Your task to perform on an android device: remove spam from my inbox in the gmail app Image 0: 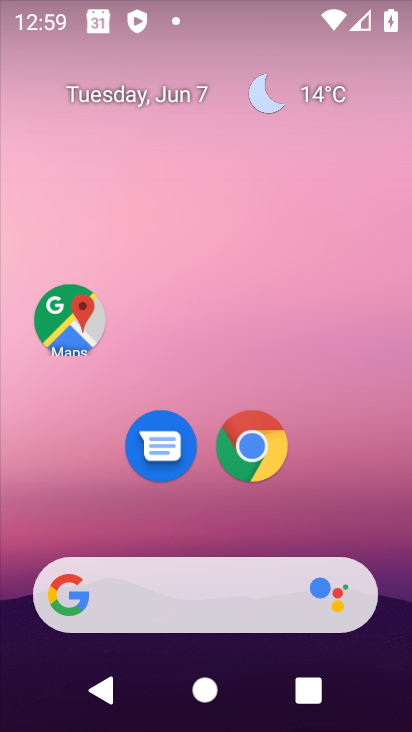
Step 0: drag from (325, 491) to (252, 19)
Your task to perform on an android device: remove spam from my inbox in the gmail app Image 1: 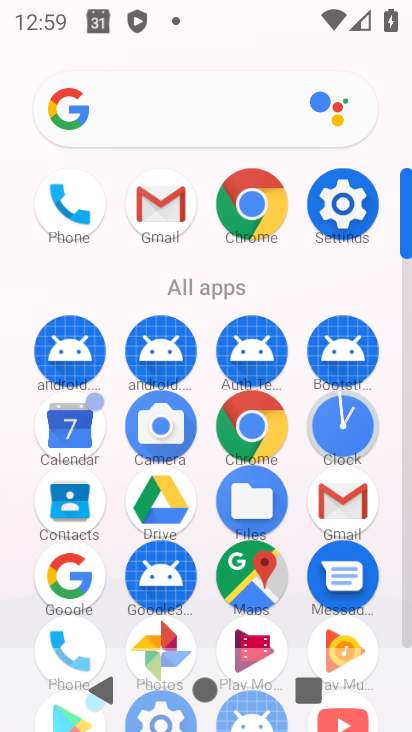
Step 1: drag from (7, 569) to (21, 241)
Your task to perform on an android device: remove spam from my inbox in the gmail app Image 2: 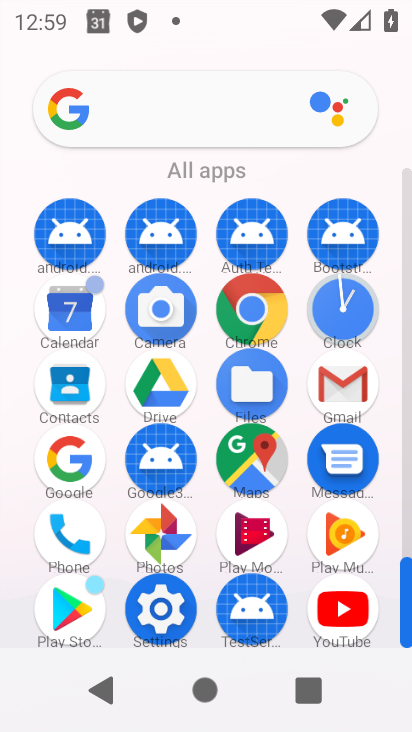
Step 2: click (341, 374)
Your task to perform on an android device: remove spam from my inbox in the gmail app Image 3: 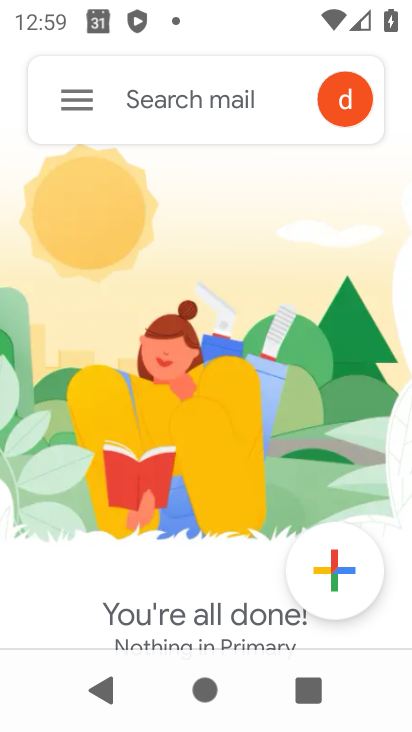
Step 3: click (82, 99)
Your task to perform on an android device: remove spam from my inbox in the gmail app Image 4: 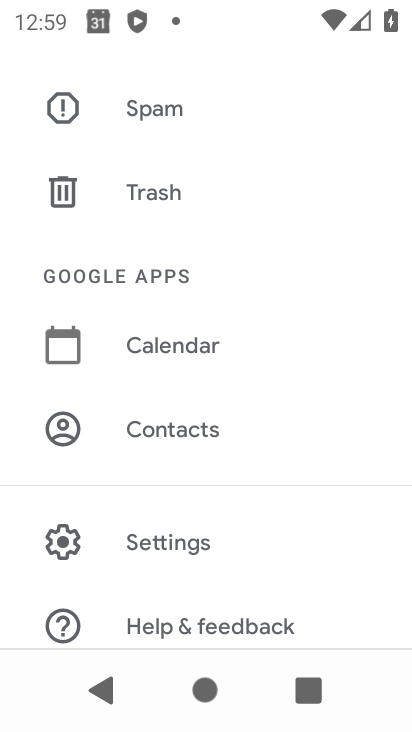
Step 4: drag from (217, 510) to (248, 123)
Your task to perform on an android device: remove spam from my inbox in the gmail app Image 5: 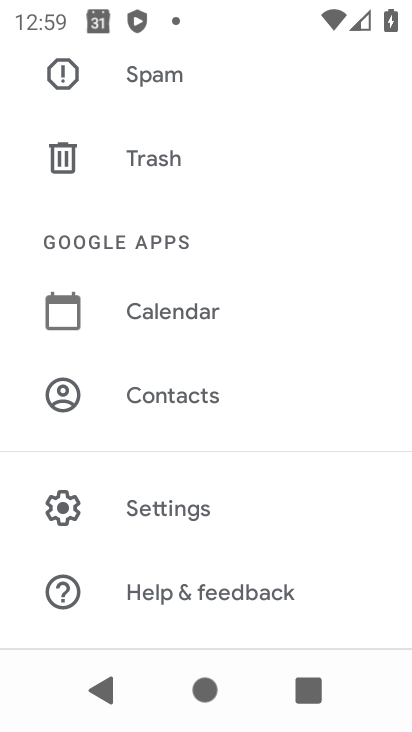
Step 5: drag from (248, 120) to (291, 583)
Your task to perform on an android device: remove spam from my inbox in the gmail app Image 6: 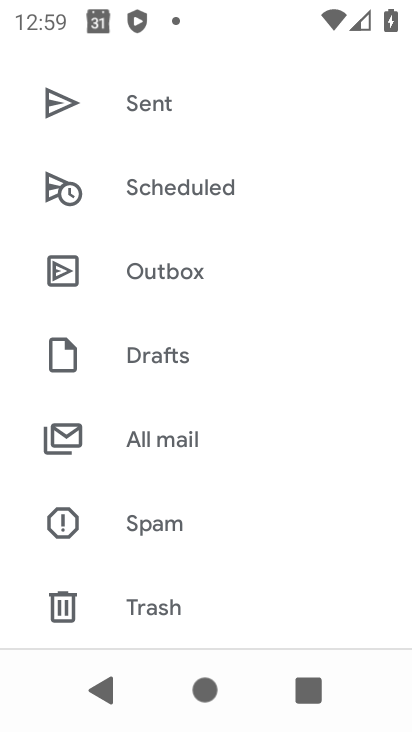
Step 6: click (170, 518)
Your task to perform on an android device: remove spam from my inbox in the gmail app Image 7: 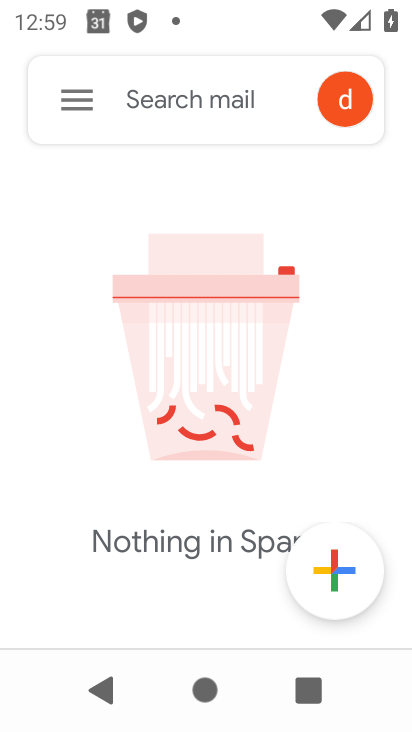
Step 7: task complete